Your task to perform on an android device: Toggle the flashlight Image 0: 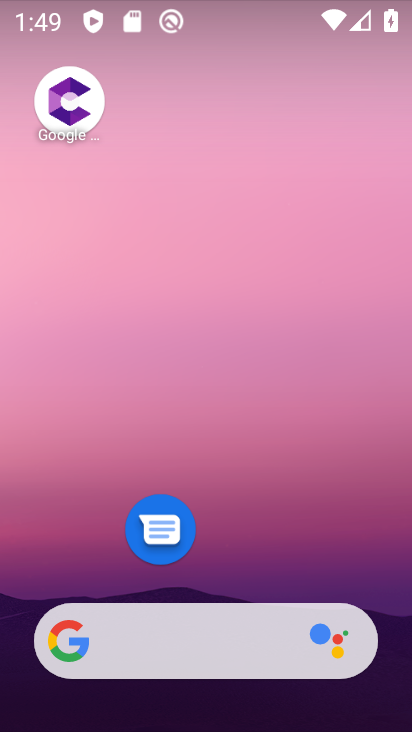
Step 0: drag from (244, 421) to (244, 99)
Your task to perform on an android device: Toggle the flashlight Image 1: 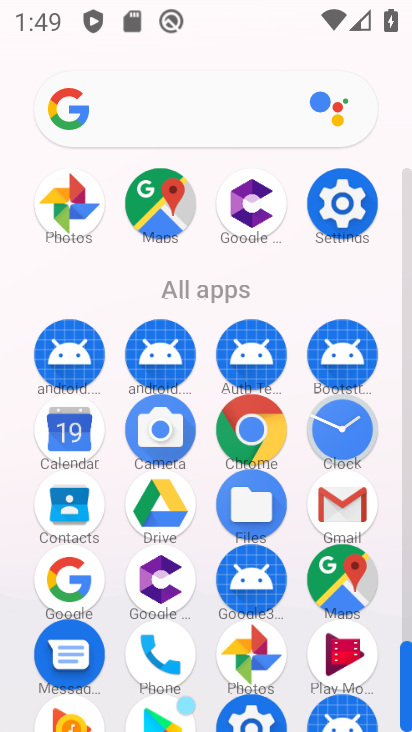
Step 1: click (334, 192)
Your task to perform on an android device: Toggle the flashlight Image 2: 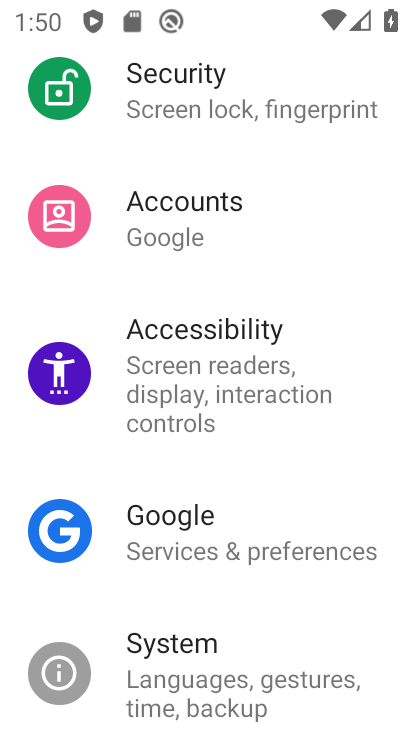
Step 2: drag from (212, 128) to (216, 666)
Your task to perform on an android device: Toggle the flashlight Image 3: 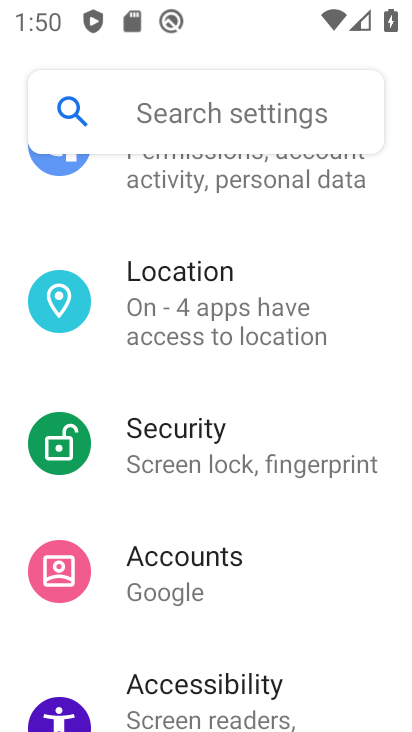
Step 3: click (174, 126)
Your task to perform on an android device: Toggle the flashlight Image 4: 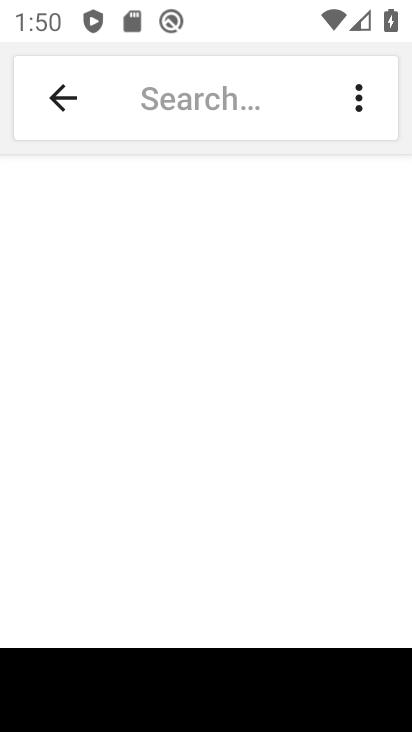
Step 4: type "flashlight"
Your task to perform on an android device: Toggle the flashlight Image 5: 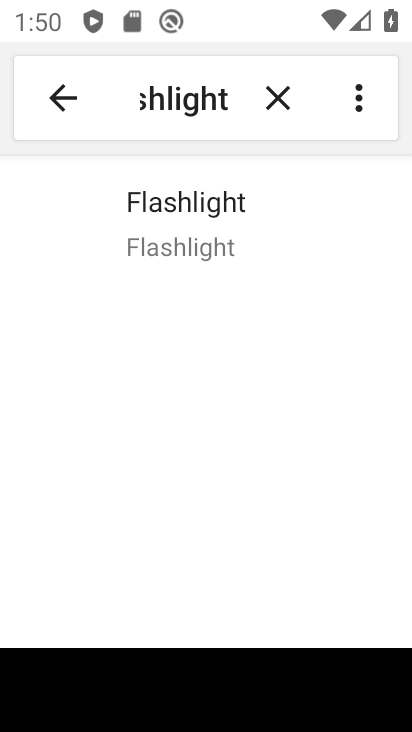
Step 5: click (206, 216)
Your task to perform on an android device: Toggle the flashlight Image 6: 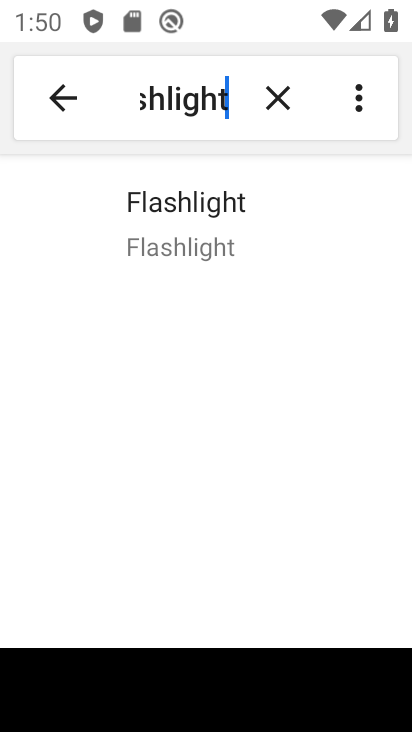
Step 6: click (189, 220)
Your task to perform on an android device: Toggle the flashlight Image 7: 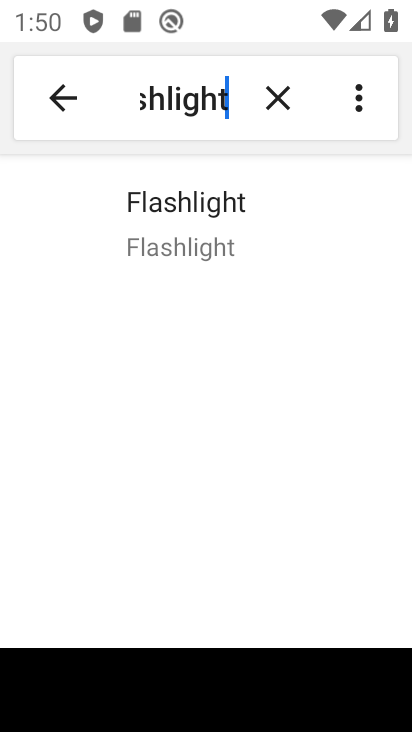
Step 7: task complete